Your task to perform on an android device: delete a single message in the gmail app Image 0: 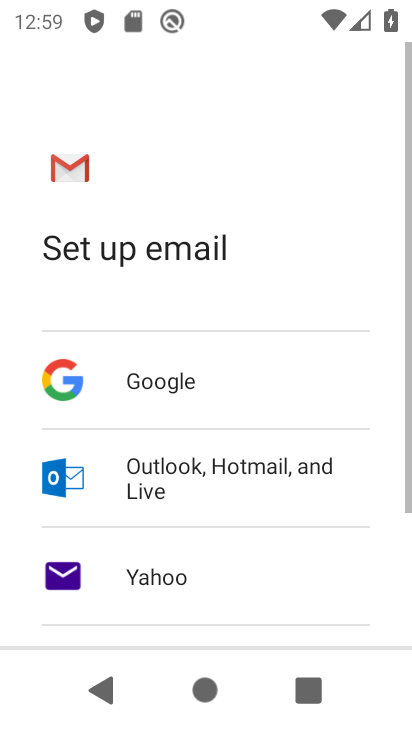
Step 0: press home button
Your task to perform on an android device: delete a single message in the gmail app Image 1: 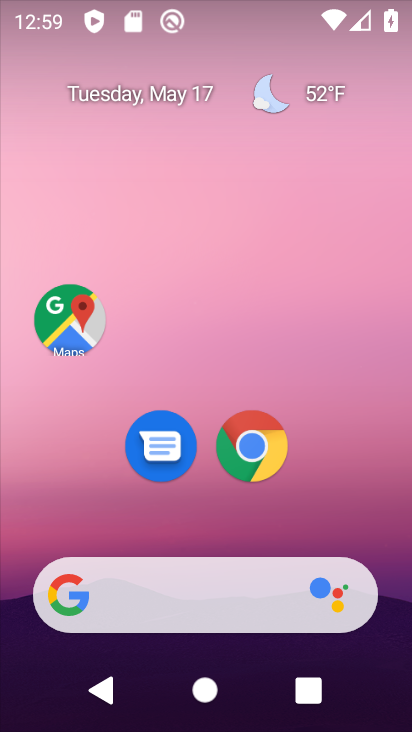
Step 1: drag from (362, 502) to (316, 280)
Your task to perform on an android device: delete a single message in the gmail app Image 2: 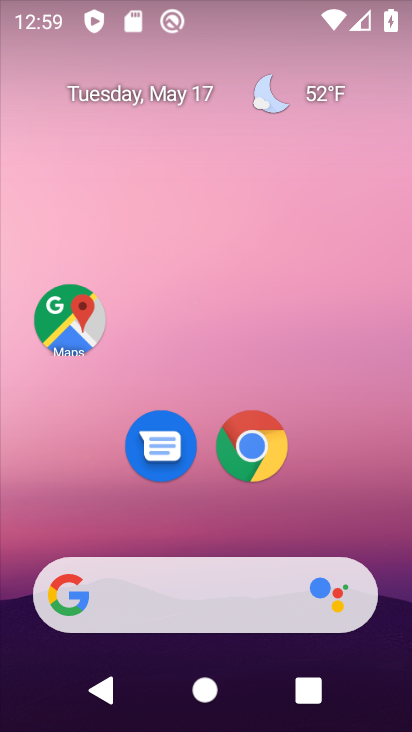
Step 2: drag from (345, 494) to (314, 166)
Your task to perform on an android device: delete a single message in the gmail app Image 3: 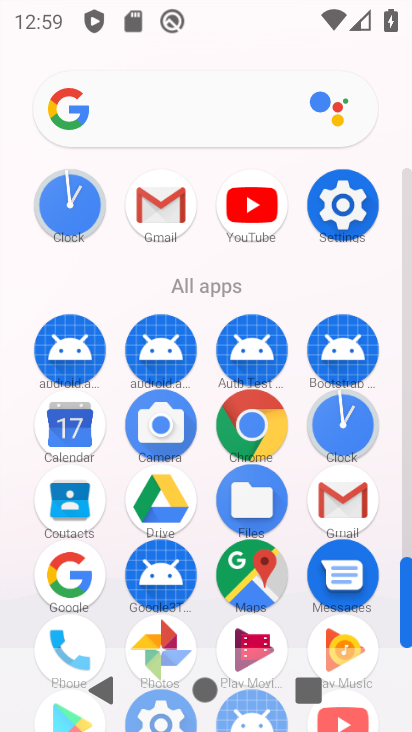
Step 3: click (346, 516)
Your task to perform on an android device: delete a single message in the gmail app Image 4: 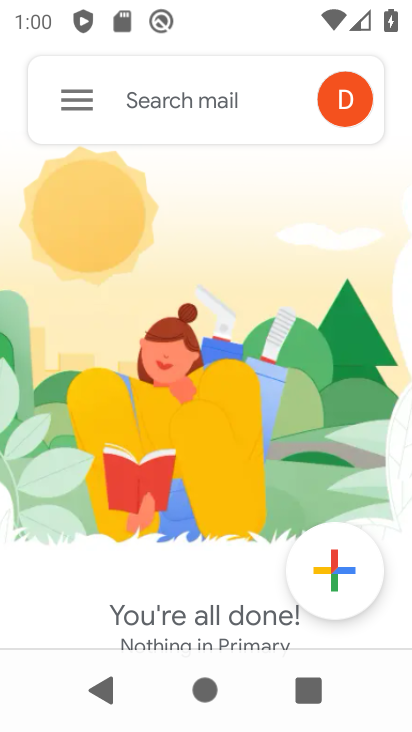
Step 4: click (85, 108)
Your task to perform on an android device: delete a single message in the gmail app Image 5: 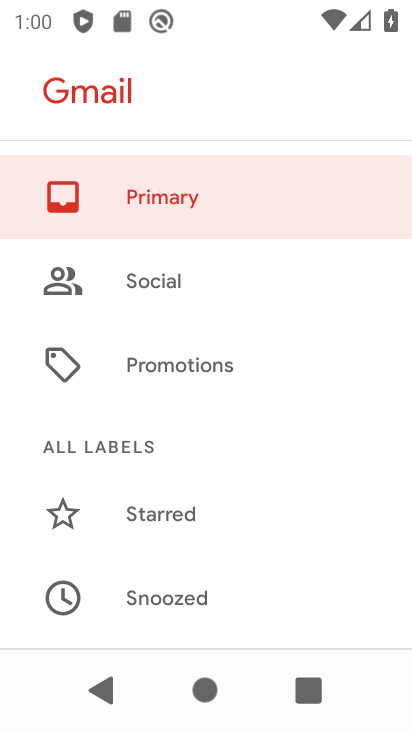
Step 5: drag from (236, 533) to (211, 245)
Your task to perform on an android device: delete a single message in the gmail app Image 6: 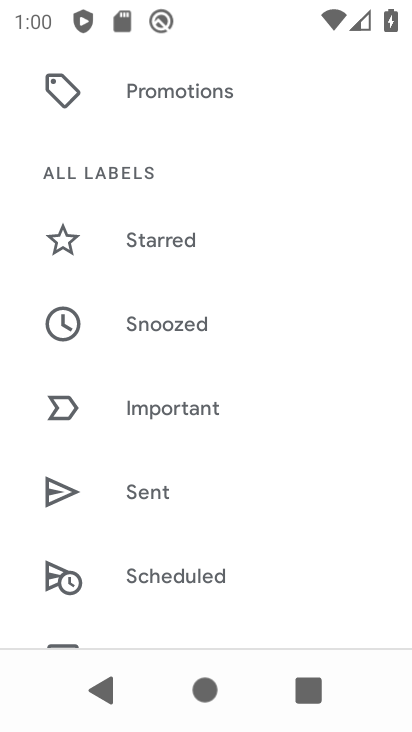
Step 6: drag from (215, 541) to (171, 276)
Your task to perform on an android device: delete a single message in the gmail app Image 7: 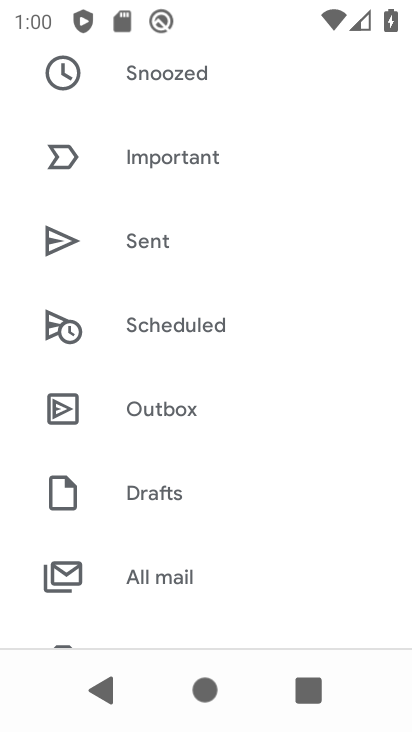
Step 7: click (215, 578)
Your task to perform on an android device: delete a single message in the gmail app Image 8: 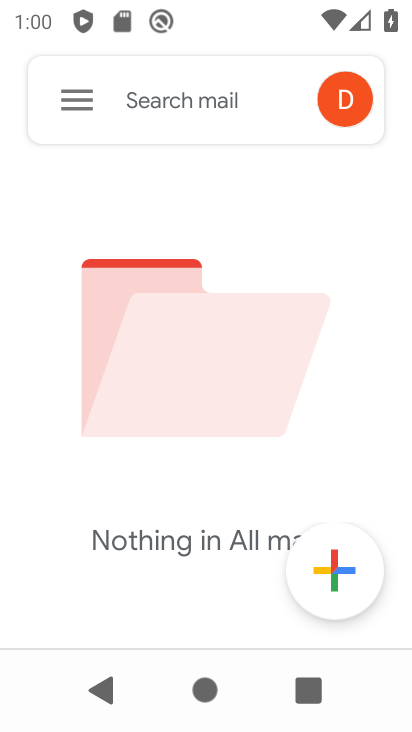
Step 8: task complete